Your task to perform on an android device: visit the assistant section in the google photos Image 0: 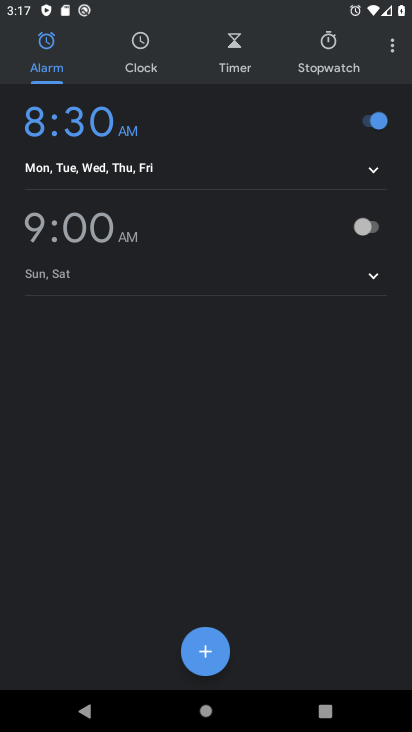
Step 0: press home button
Your task to perform on an android device: visit the assistant section in the google photos Image 1: 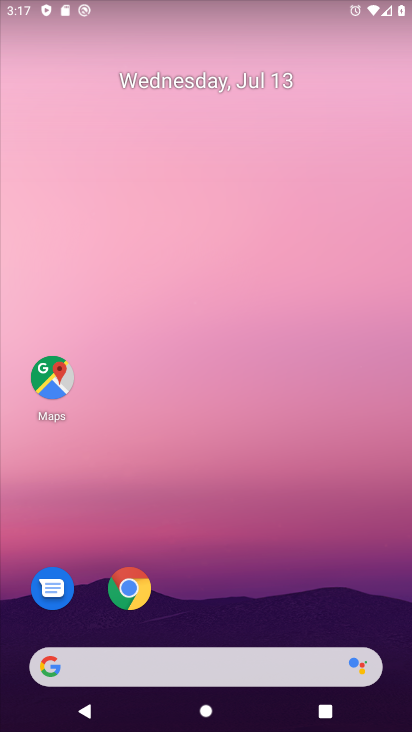
Step 1: drag from (265, 663) to (148, 290)
Your task to perform on an android device: visit the assistant section in the google photos Image 2: 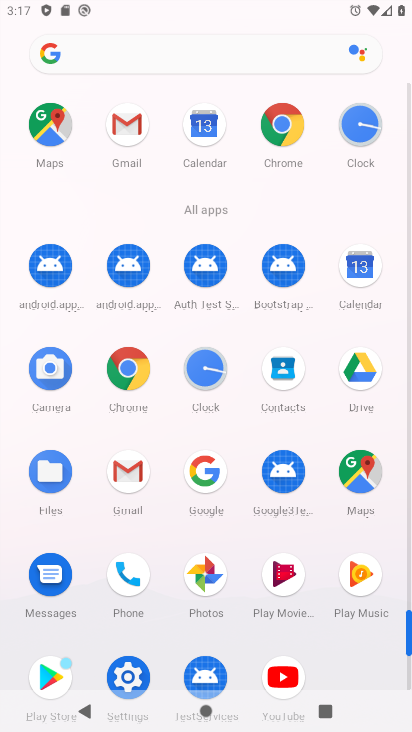
Step 2: click (216, 555)
Your task to perform on an android device: visit the assistant section in the google photos Image 3: 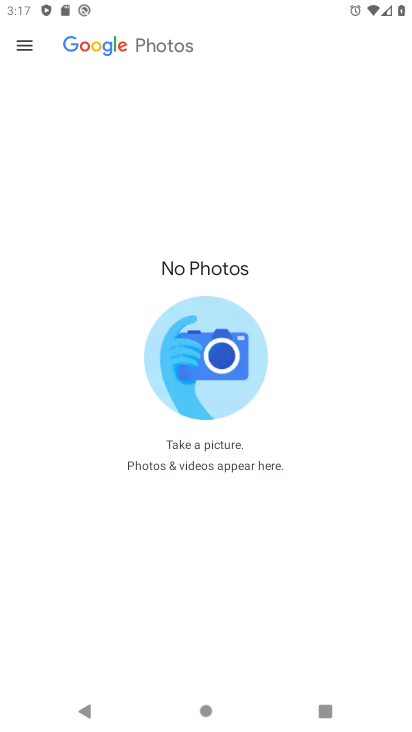
Step 3: click (23, 47)
Your task to perform on an android device: visit the assistant section in the google photos Image 4: 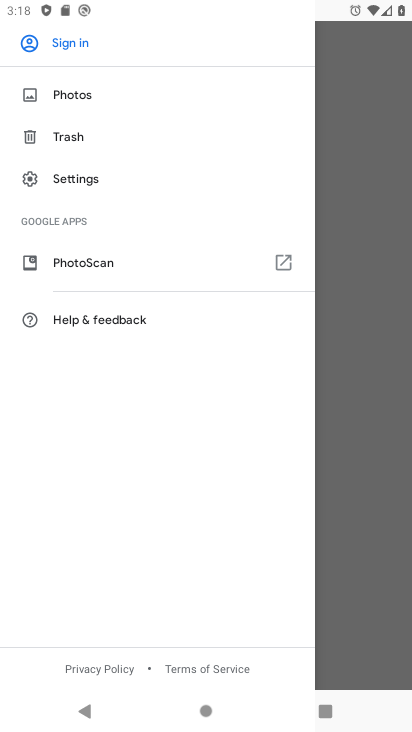
Step 4: click (66, 173)
Your task to perform on an android device: visit the assistant section in the google photos Image 5: 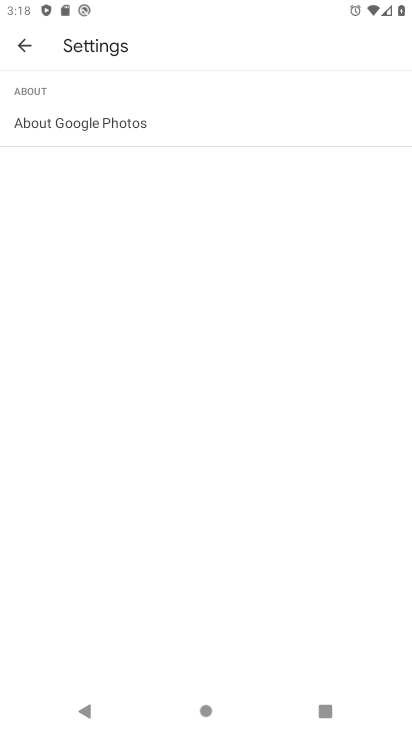
Step 5: task complete